Your task to perform on an android device: Go to settings Image 0: 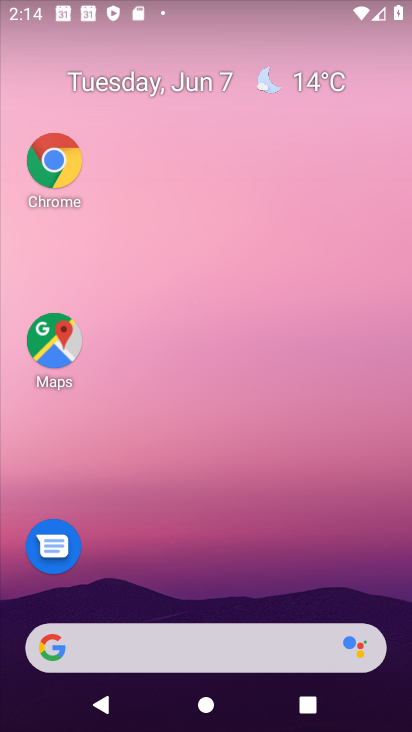
Step 0: drag from (261, 2) to (197, 7)
Your task to perform on an android device: Go to settings Image 1: 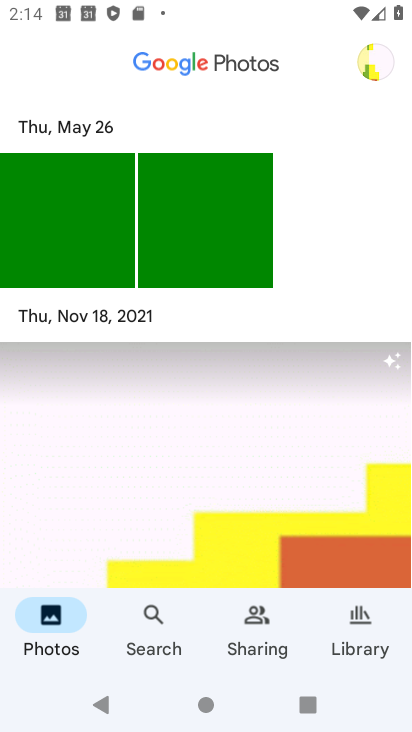
Step 1: press home button
Your task to perform on an android device: Go to settings Image 2: 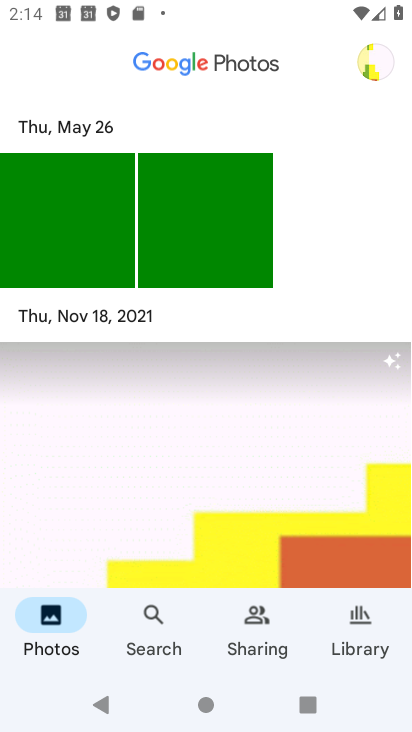
Step 2: drag from (164, 541) to (200, 7)
Your task to perform on an android device: Go to settings Image 3: 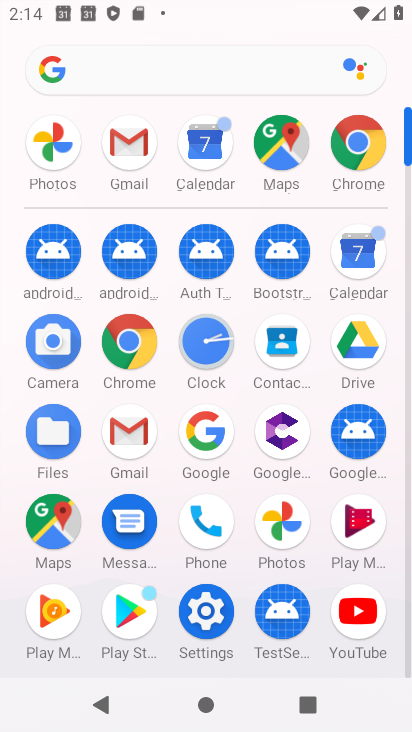
Step 3: click (214, 621)
Your task to perform on an android device: Go to settings Image 4: 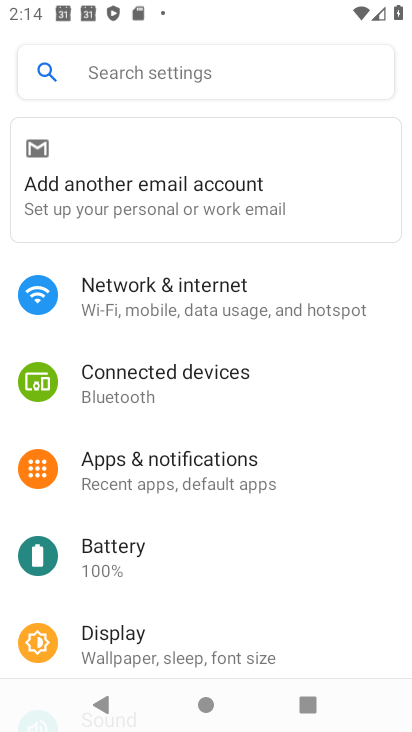
Step 4: task complete